Your task to perform on an android device: Open Youtube and go to the subscriptions tab Image 0: 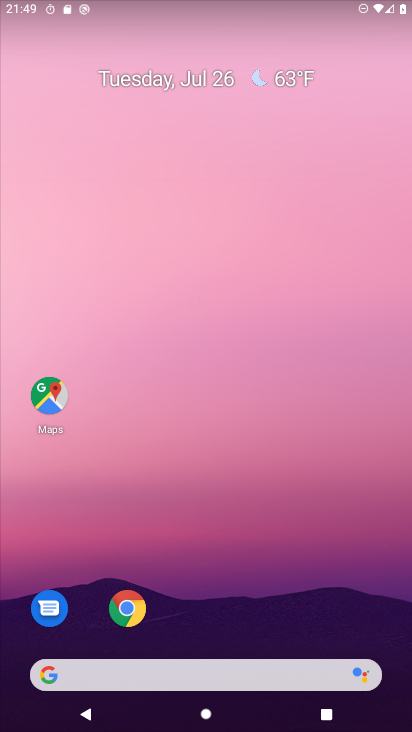
Step 0: drag from (11, 710) to (223, 50)
Your task to perform on an android device: Open Youtube and go to the subscriptions tab Image 1: 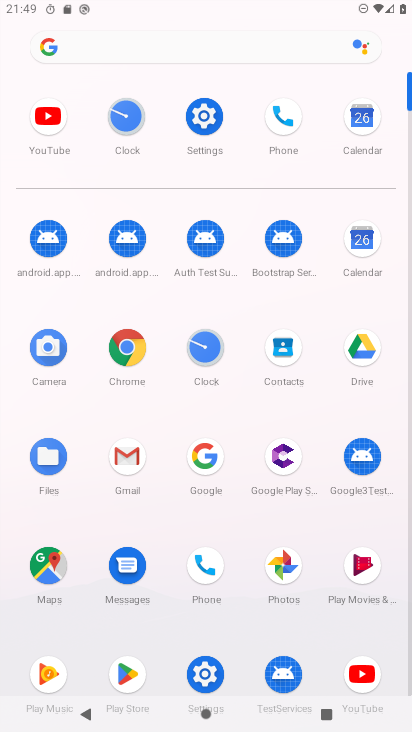
Step 1: click (361, 669)
Your task to perform on an android device: Open Youtube and go to the subscriptions tab Image 2: 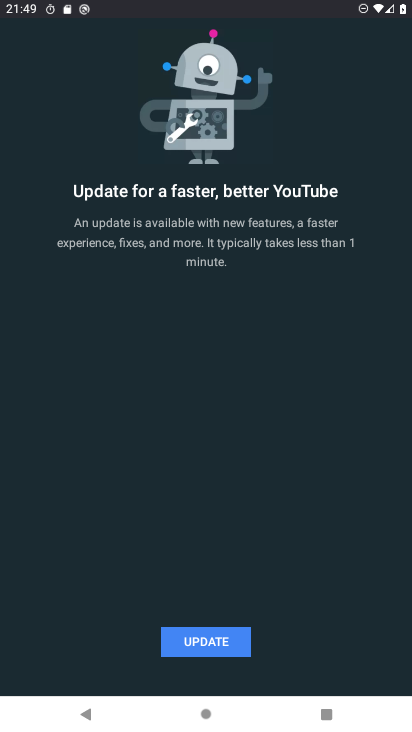
Step 2: click (204, 635)
Your task to perform on an android device: Open Youtube and go to the subscriptions tab Image 3: 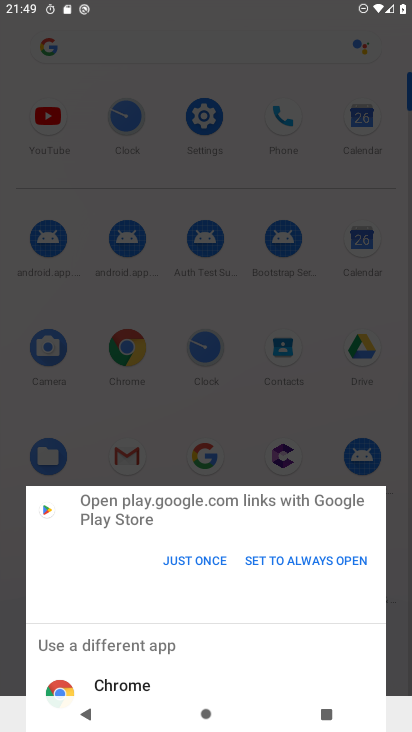
Step 3: click (201, 559)
Your task to perform on an android device: Open Youtube and go to the subscriptions tab Image 4: 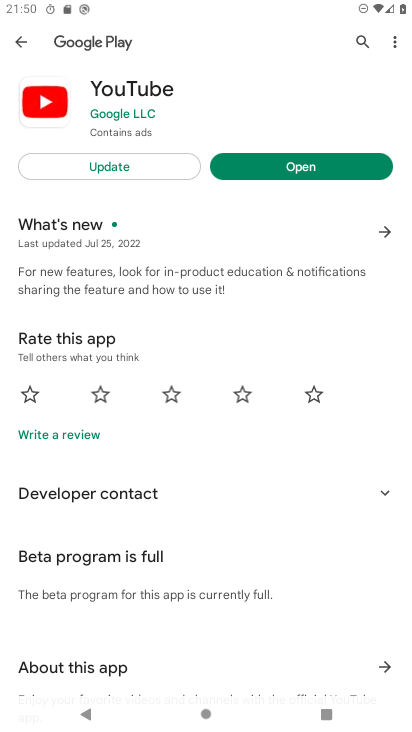
Step 4: task complete